Your task to perform on an android device: Open settings Image 0: 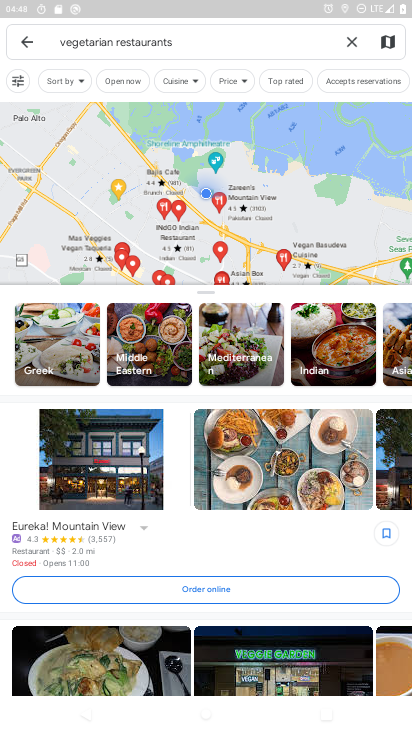
Step 0: press home button
Your task to perform on an android device: Open settings Image 1: 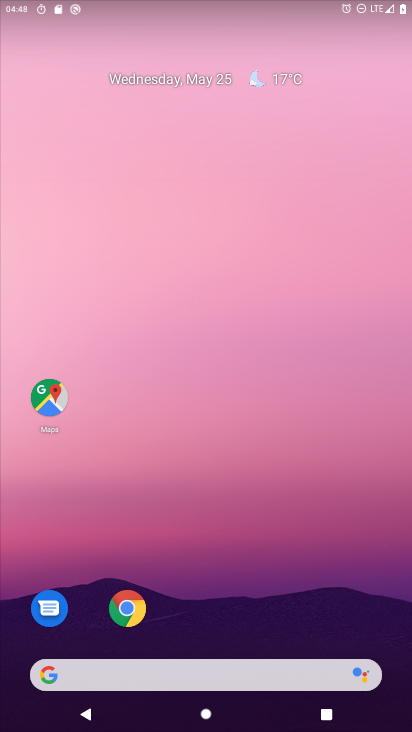
Step 1: drag from (332, 541) to (312, 163)
Your task to perform on an android device: Open settings Image 2: 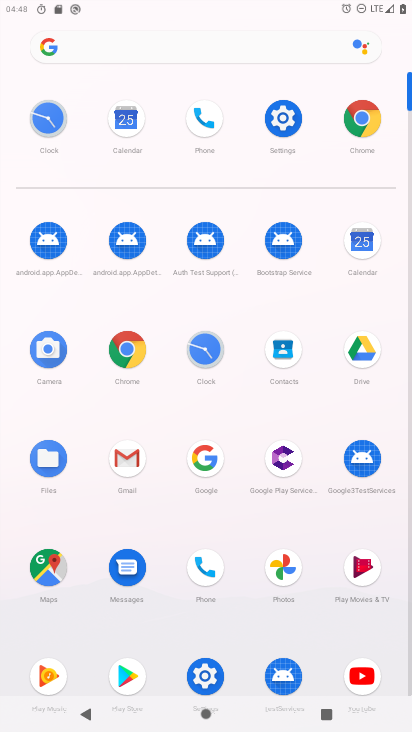
Step 2: click (292, 126)
Your task to perform on an android device: Open settings Image 3: 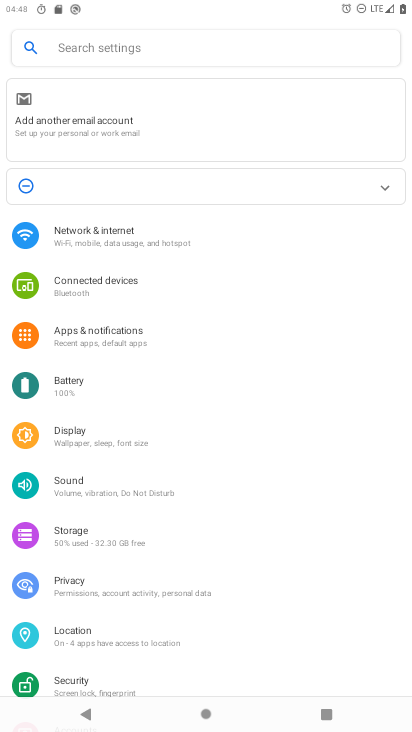
Step 3: task complete